Your task to perform on an android device: turn on javascript in the chrome app Image 0: 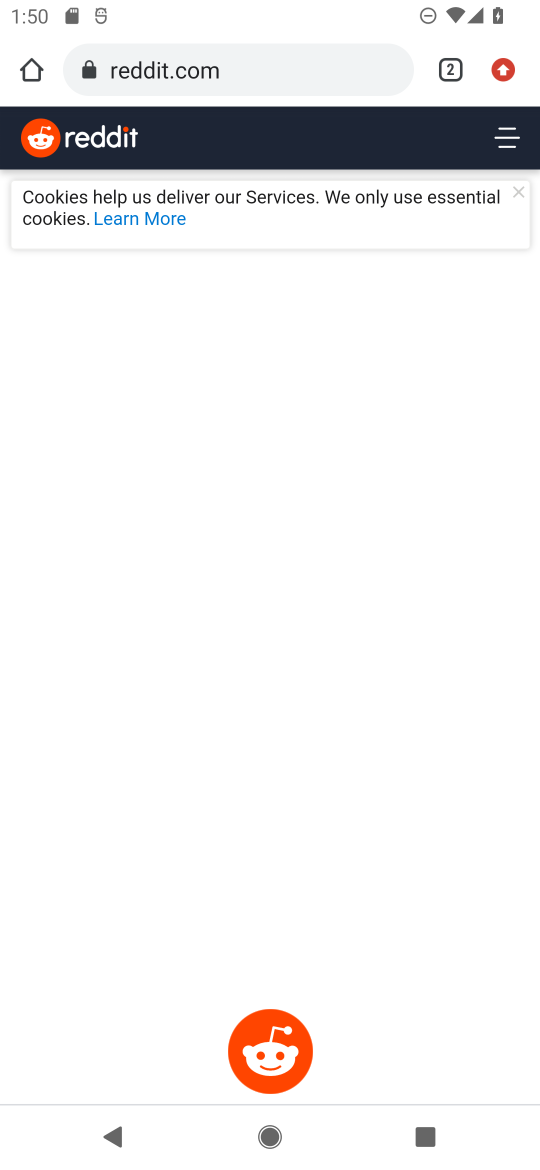
Step 0: press back button
Your task to perform on an android device: turn on javascript in the chrome app Image 1: 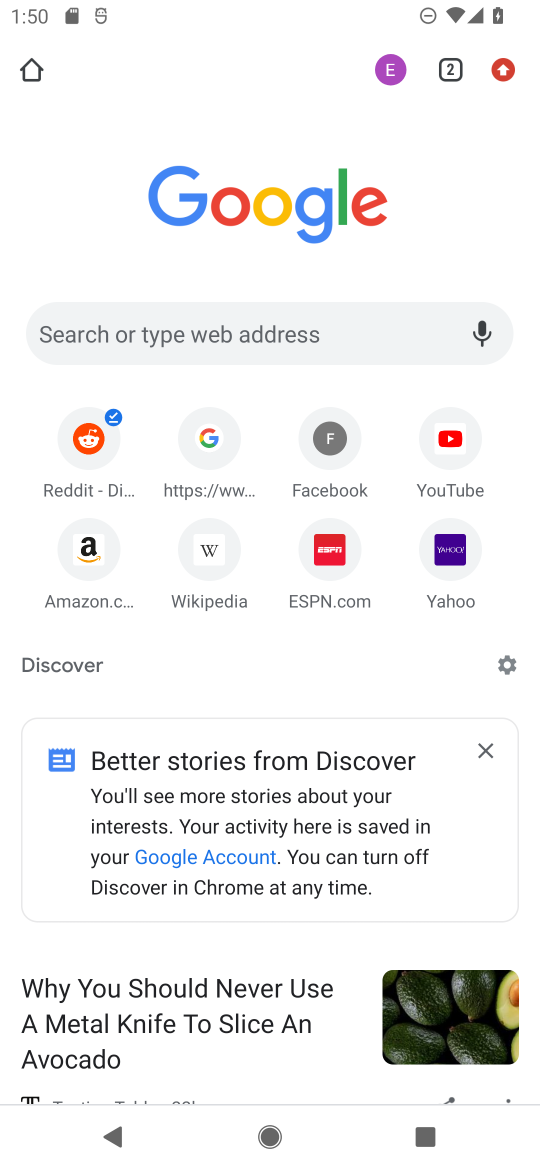
Step 1: click (514, 67)
Your task to perform on an android device: turn on javascript in the chrome app Image 2: 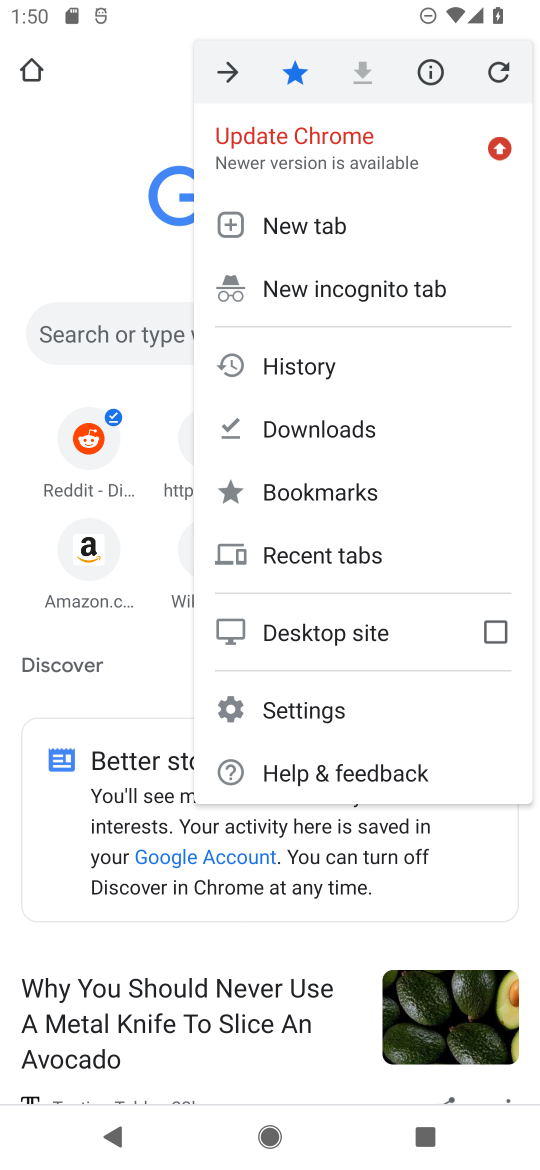
Step 2: click (315, 706)
Your task to perform on an android device: turn on javascript in the chrome app Image 3: 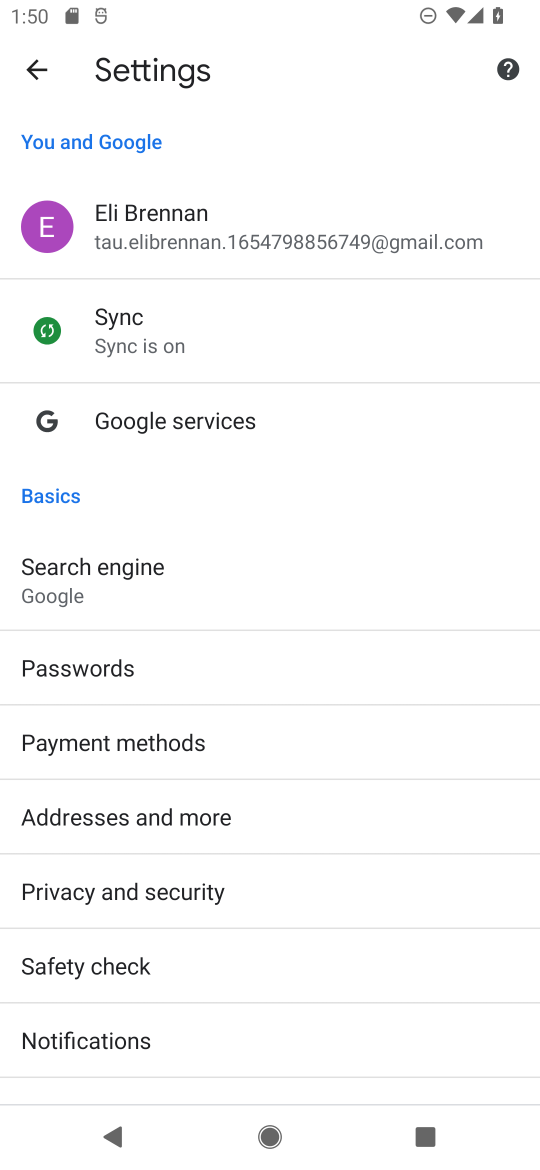
Step 3: drag from (190, 949) to (183, 617)
Your task to perform on an android device: turn on javascript in the chrome app Image 4: 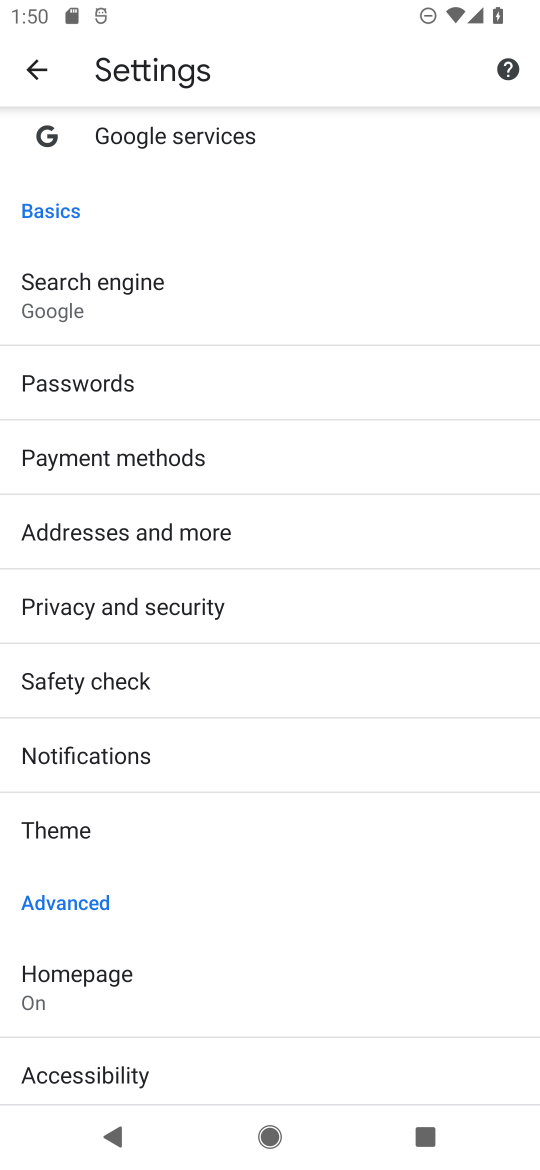
Step 4: click (147, 628)
Your task to perform on an android device: turn on javascript in the chrome app Image 5: 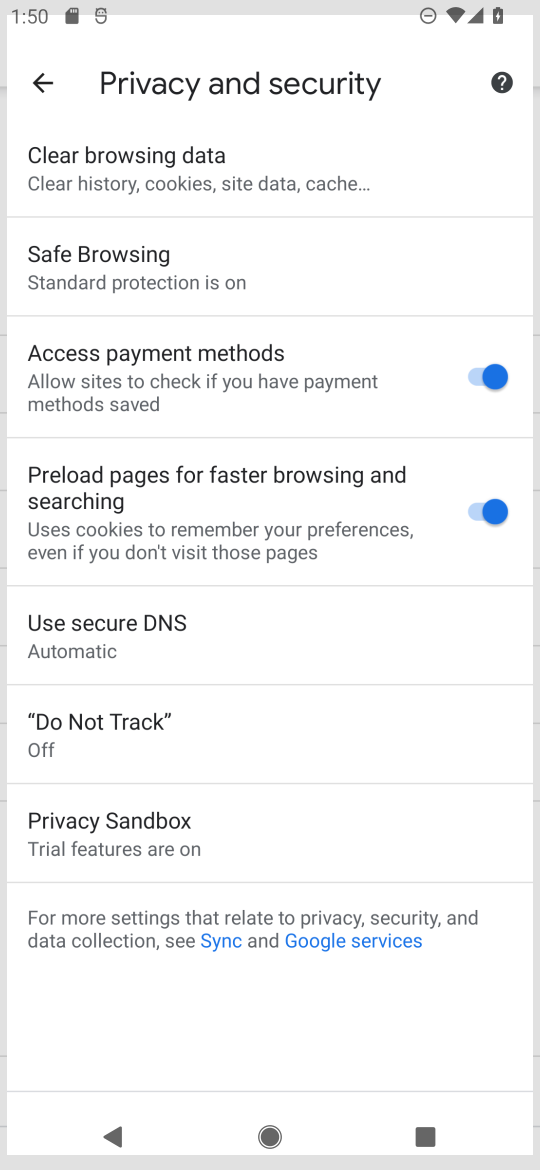
Step 5: drag from (253, 746) to (257, 419)
Your task to perform on an android device: turn on javascript in the chrome app Image 6: 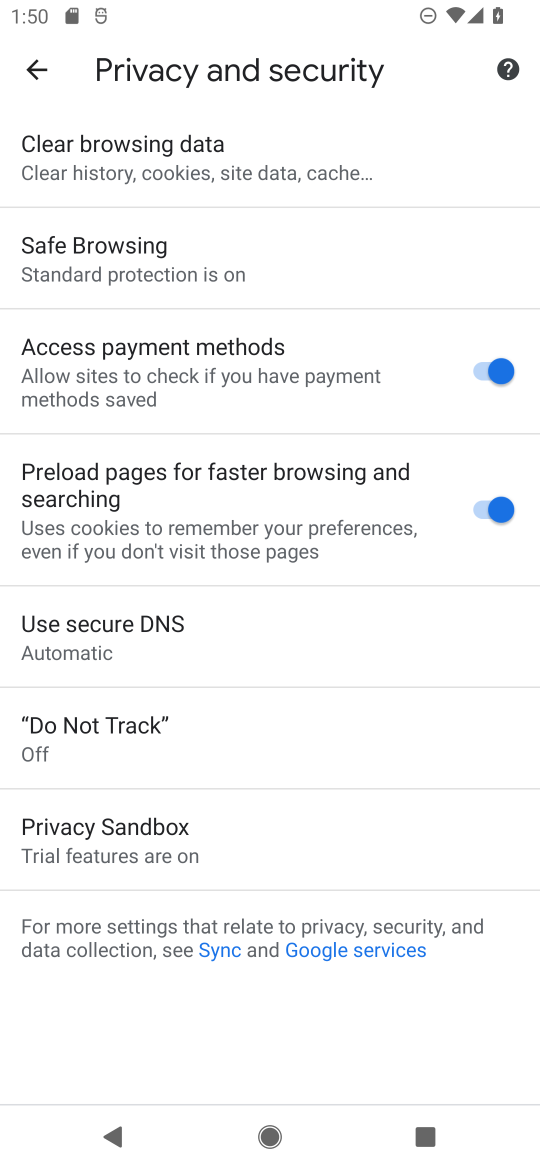
Step 6: click (33, 75)
Your task to perform on an android device: turn on javascript in the chrome app Image 7: 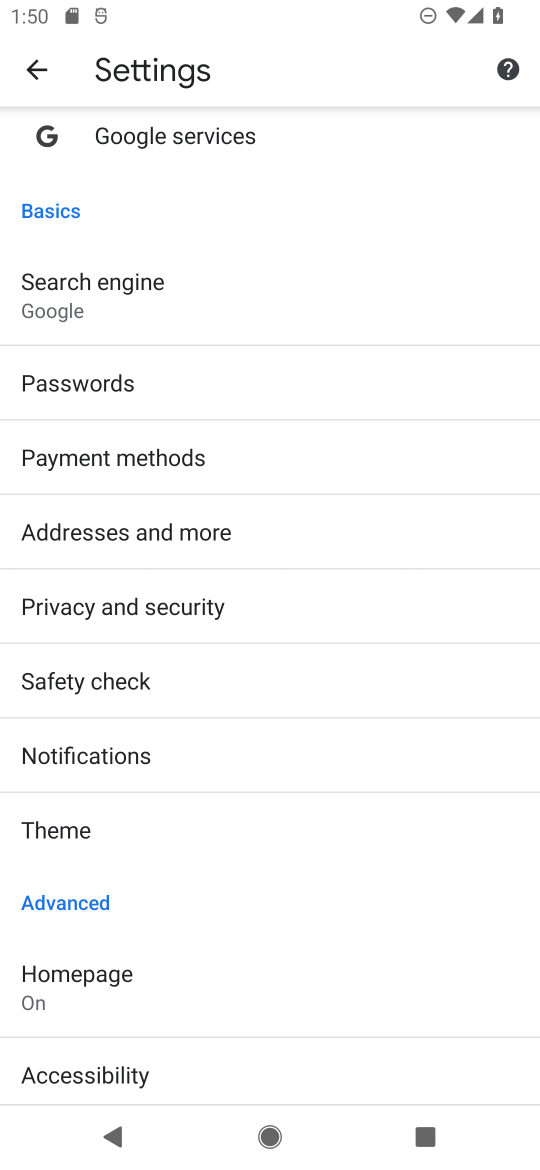
Step 7: drag from (194, 924) to (200, 515)
Your task to perform on an android device: turn on javascript in the chrome app Image 8: 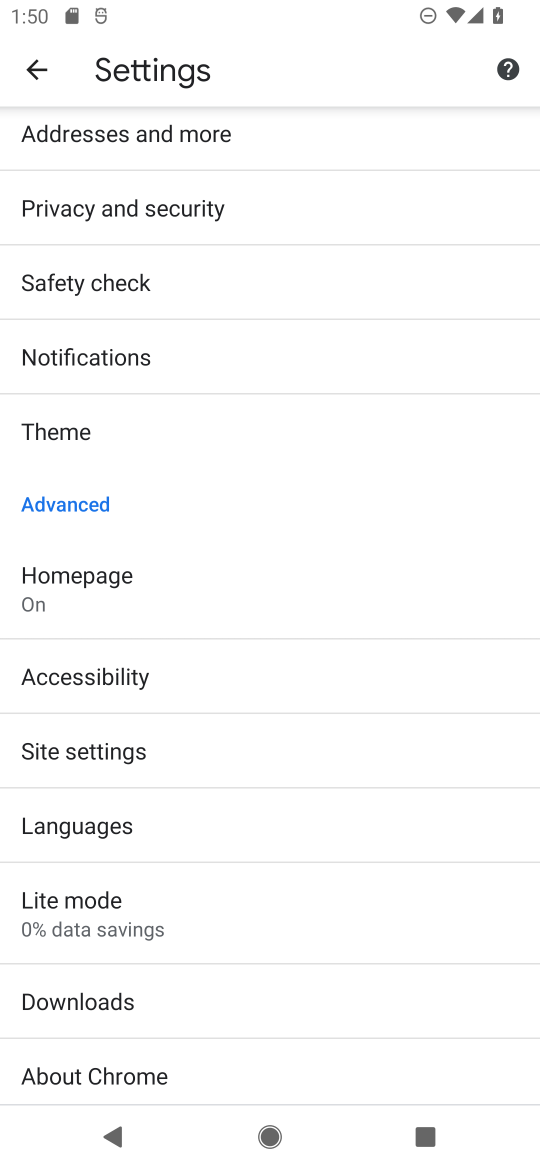
Step 8: drag from (216, 806) to (195, 384)
Your task to perform on an android device: turn on javascript in the chrome app Image 9: 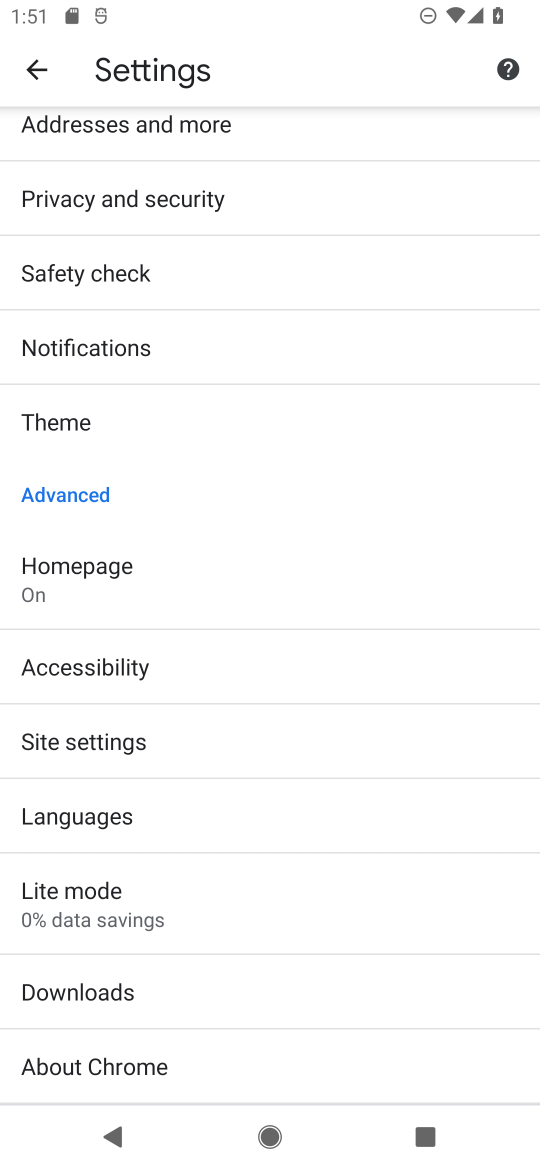
Step 9: click (109, 745)
Your task to perform on an android device: turn on javascript in the chrome app Image 10: 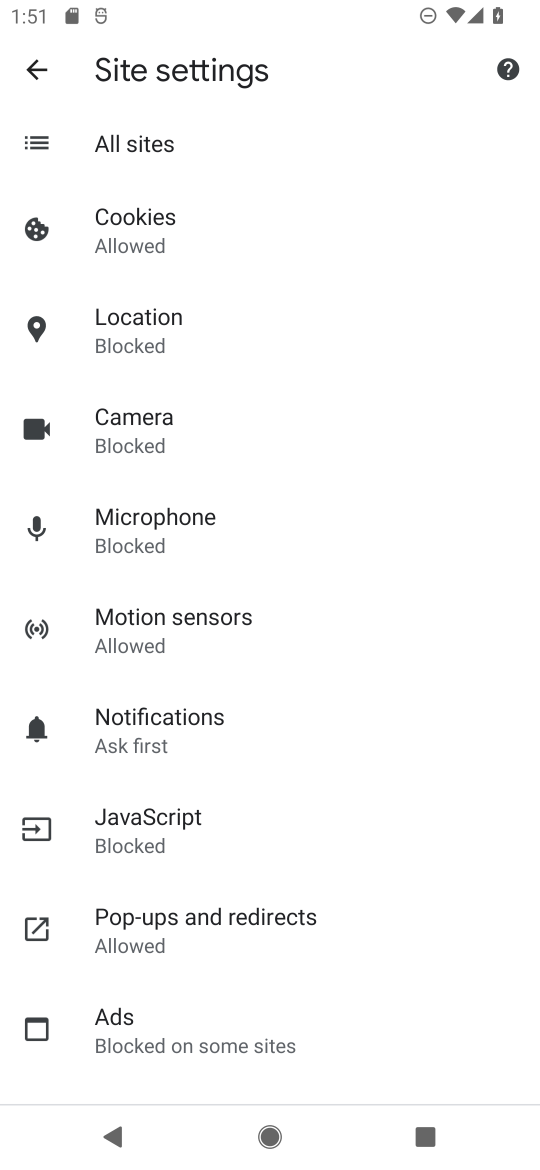
Step 10: click (171, 836)
Your task to perform on an android device: turn on javascript in the chrome app Image 11: 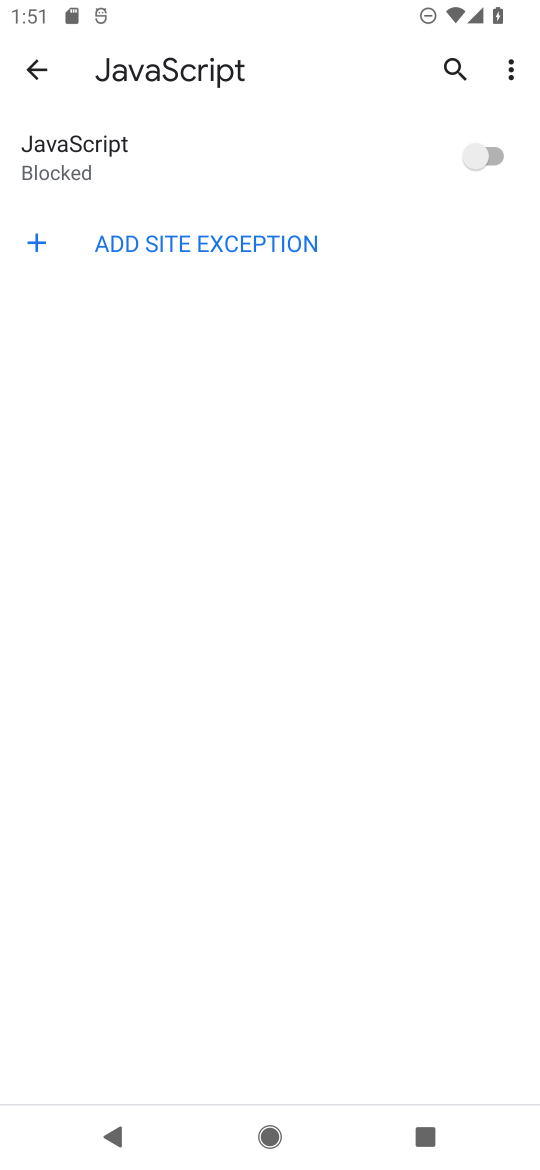
Step 11: click (495, 152)
Your task to perform on an android device: turn on javascript in the chrome app Image 12: 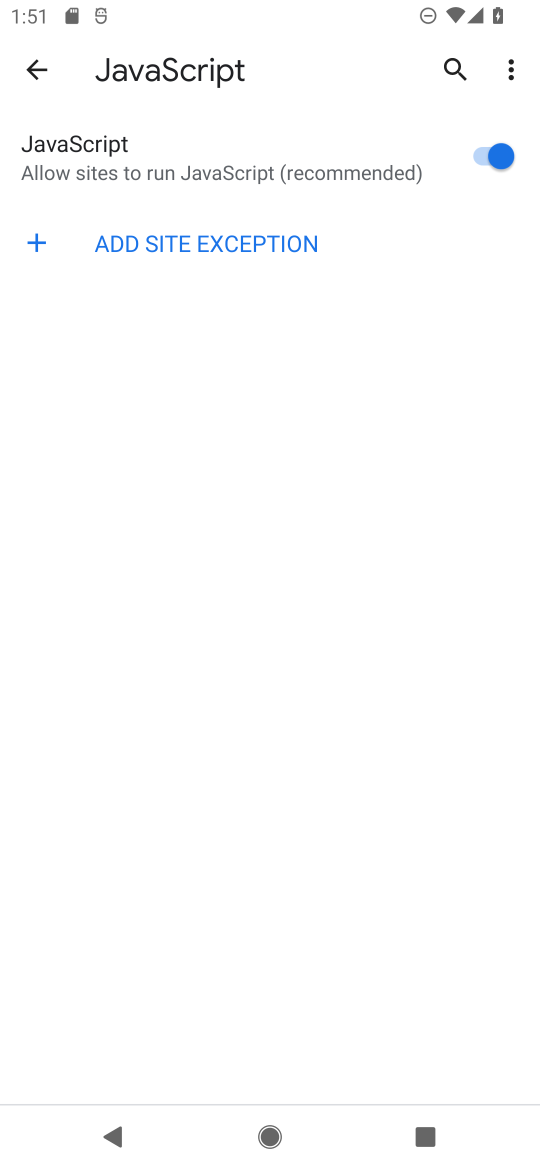
Step 12: task complete